Your task to perform on an android device: What is the news today? Image 0: 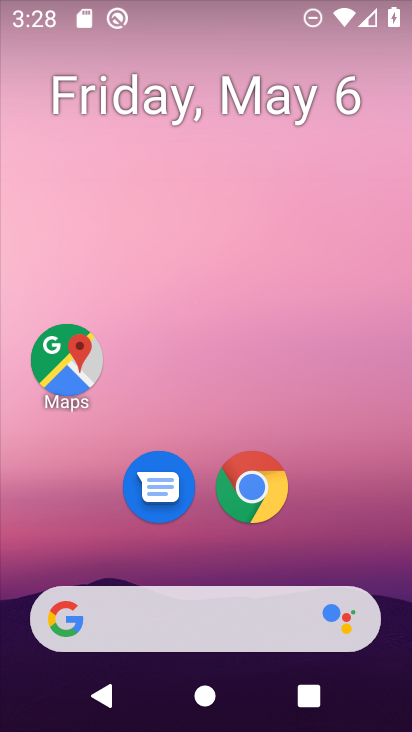
Step 0: drag from (340, 571) to (395, 41)
Your task to perform on an android device: What is the news today? Image 1: 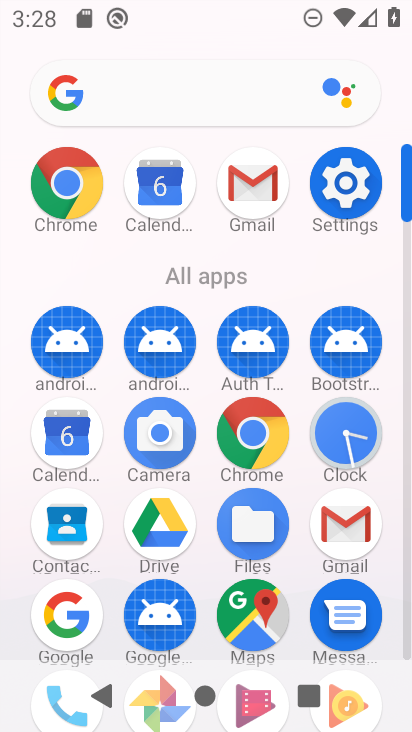
Step 1: click (181, 92)
Your task to perform on an android device: What is the news today? Image 2: 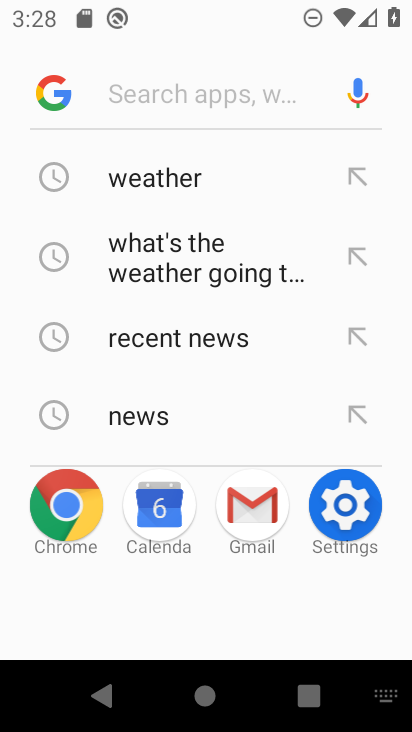
Step 2: type "what is the news today"
Your task to perform on an android device: What is the news today? Image 3: 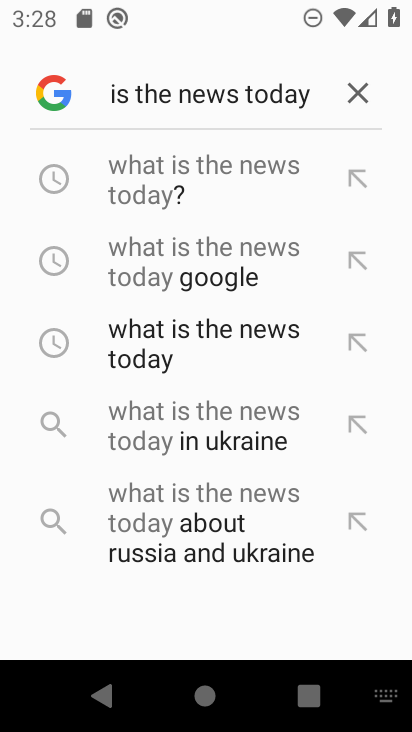
Step 3: click (201, 157)
Your task to perform on an android device: What is the news today? Image 4: 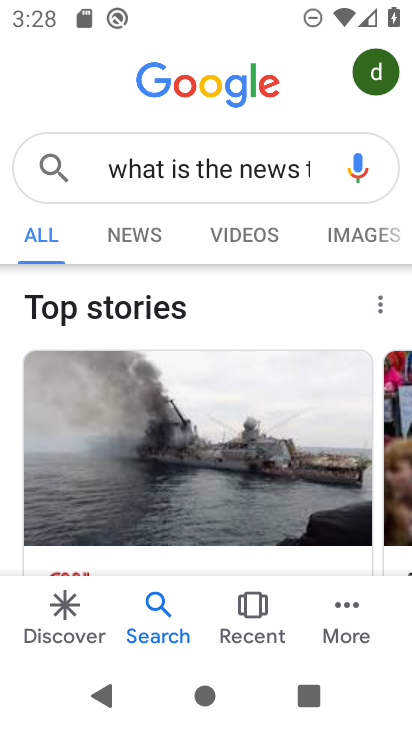
Step 4: click (149, 219)
Your task to perform on an android device: What is the news today? Image 5: 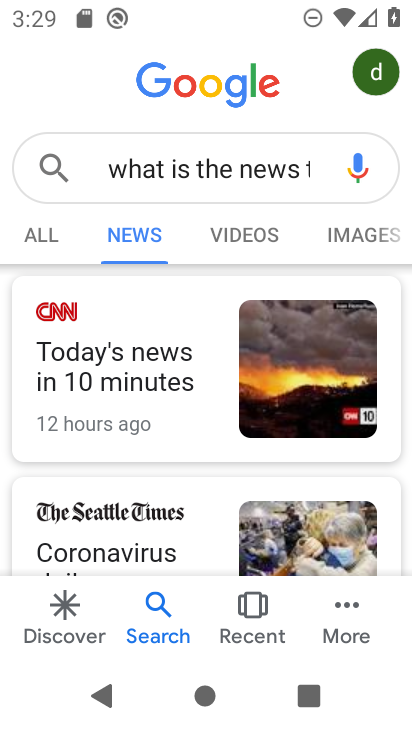
Step 5: task complete